Your task to perform on an android device: Go to Reddit.com Image 0: 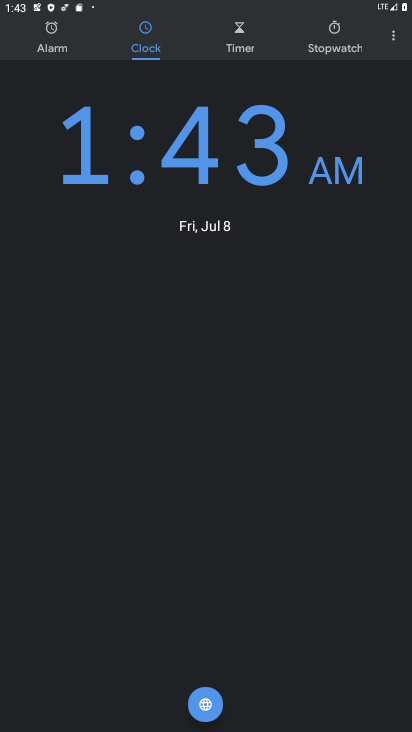
Step 0: press home button
Your task to perform on an android device: Go to Reddit.com Image 1: 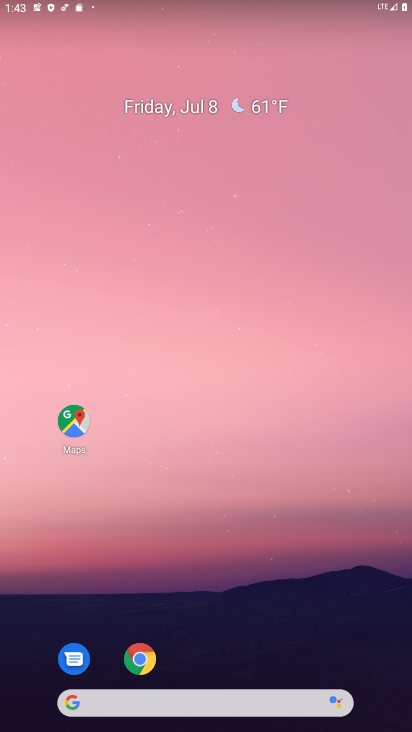
Step 1: click (144, 665)
Your task to perform on an android device: Go to Reddit.com Image 2: 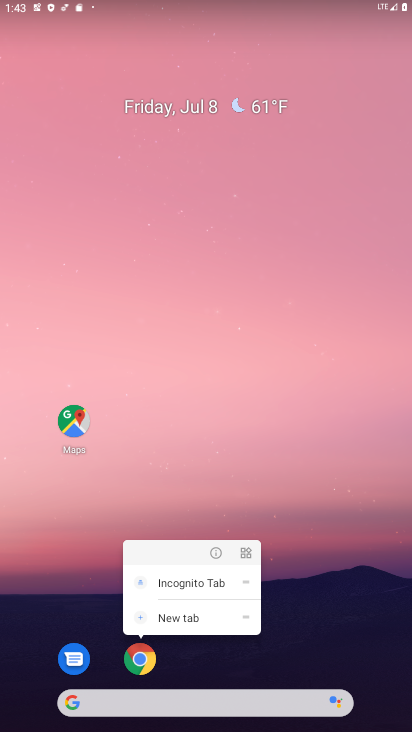
Step 2: click (133, 649)
Your task to perform on an android device: Go to Reddit.com Image 3: 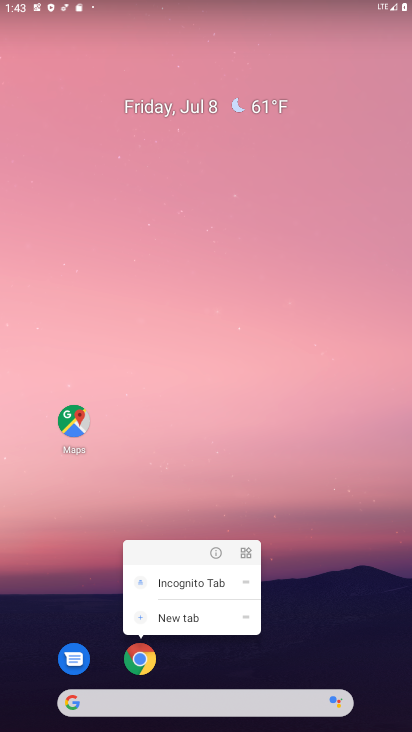
Step 3: click (139, 663)
Your task to perform on an android device: Go to Reddit.com Image 4: 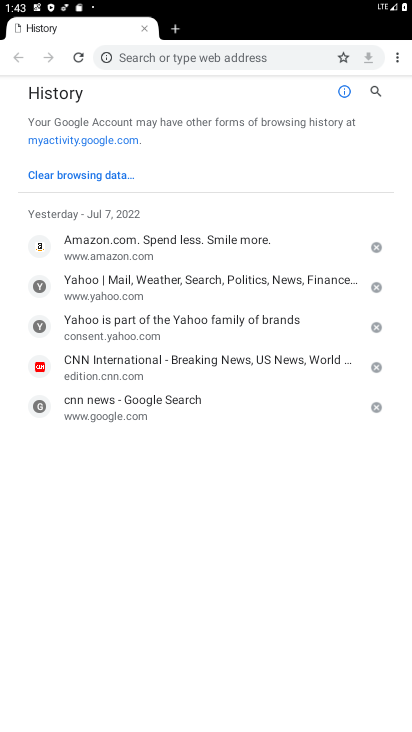
Step 4: click (172, 29)
Your task to perform on an android device: Go to Reddit.com Image 5: 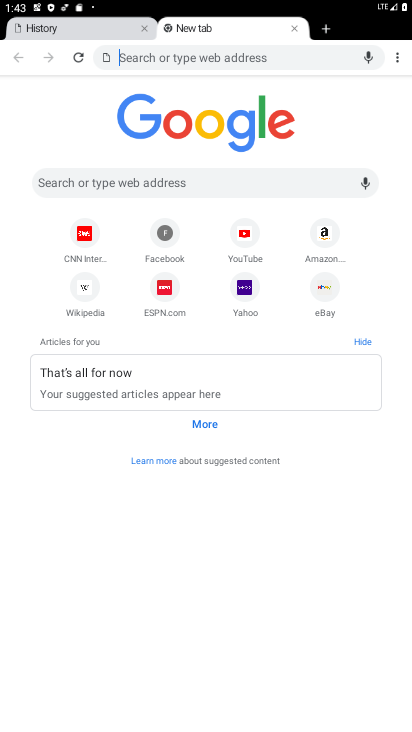
Step 5: type "Reddit.com"
Your task to perform on an android device: Go to Reddit.com Image 6: 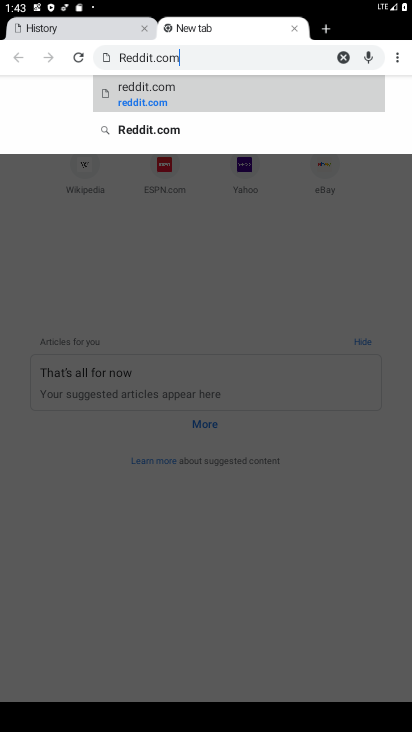
Step 6: type ""
Your task to perform on an android device: Go to Reddit.com Image 7: 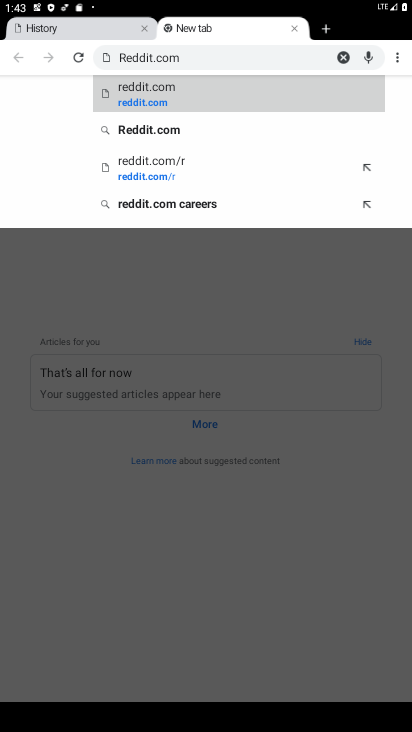
Step 7: click (142, 110)
Your task to perform on an android device: Go to Reddit.com Image 8: 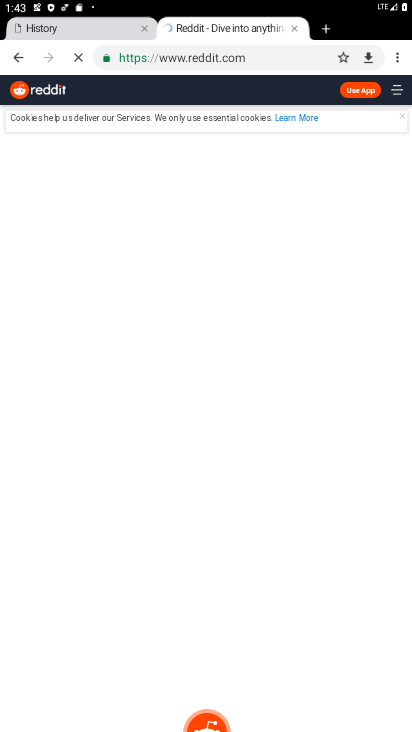
Step 8: task complete